Your task to perform on an android device: check the backup settings in the google photos Image 0: 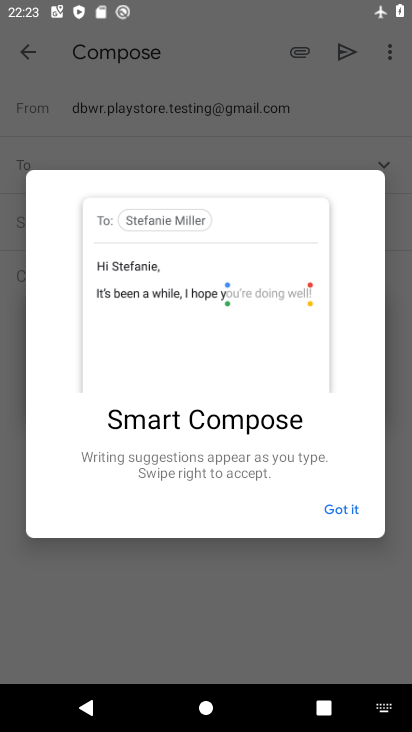
Step 0: press home button
Your task to perform on an android device: check the backup settings in the google photos Image 1: 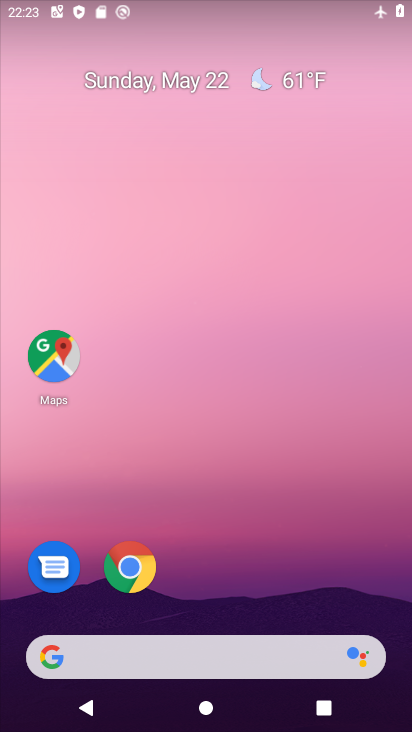
Step 1: drag from (225, 618) to (264, 20)
Your task to perform on an android device: check the backup settings in the google photos Image 2: 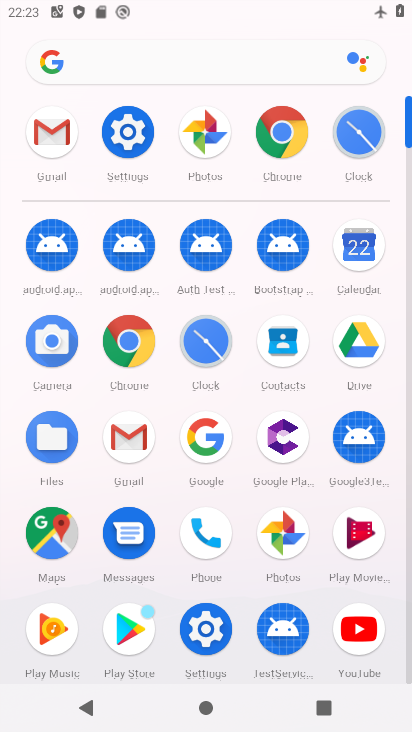
Step 2: click (262, 532)
Your task to perform on an android device: check the backup settings in the google photos Image 3: 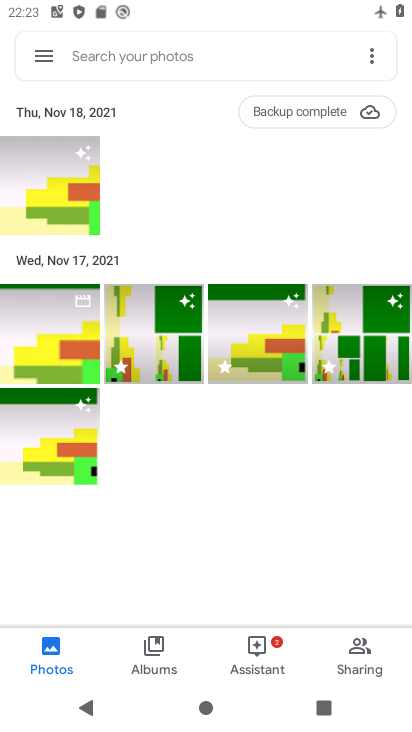
Step 3: click (38, 62)
Your task to perform on an android device: check the backup settings in the google photos Image 4: 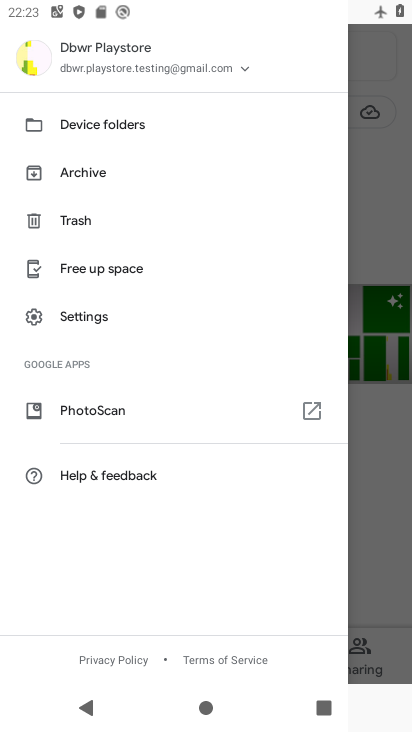
Step 4: click (67, 319)
Your task to perform on an android device: check the backup settings in the google photos Image 5: 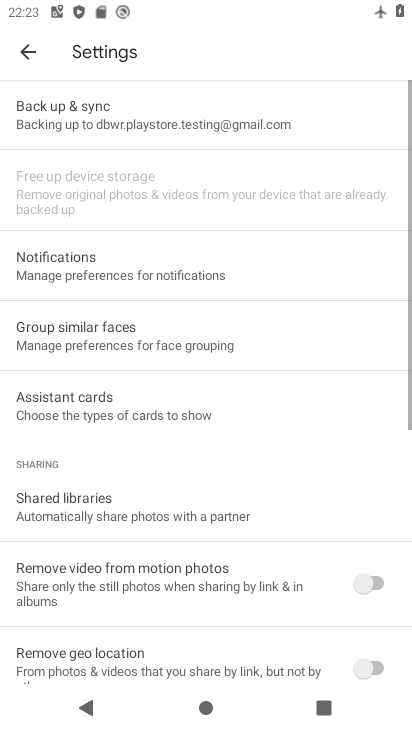
Step 5: click (86, 119)
Your task to perform on an android device: check the backup settings in the google photos Image 6: 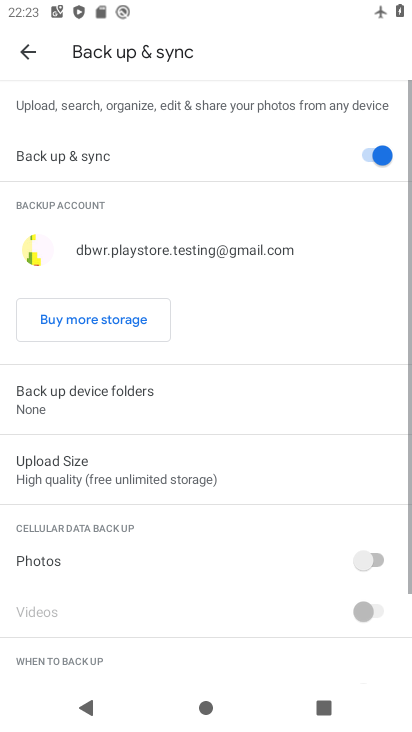
Step 6: task complete